Your task to perform on an android device: Go to Android settings Image 0: 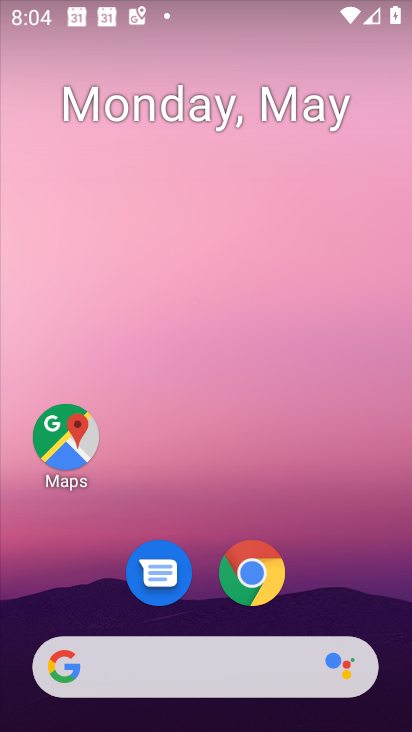
Step 0: drag from (241, 498) to (268, 341)
Your task to perform on an android device: Go to Android settings Image 1: 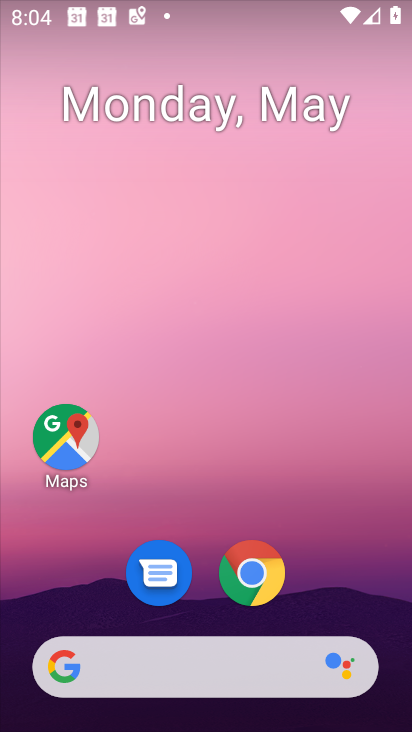
Step 1: click (265, 32)
Your task to perform on an android device: Go to Android settings Image 2: 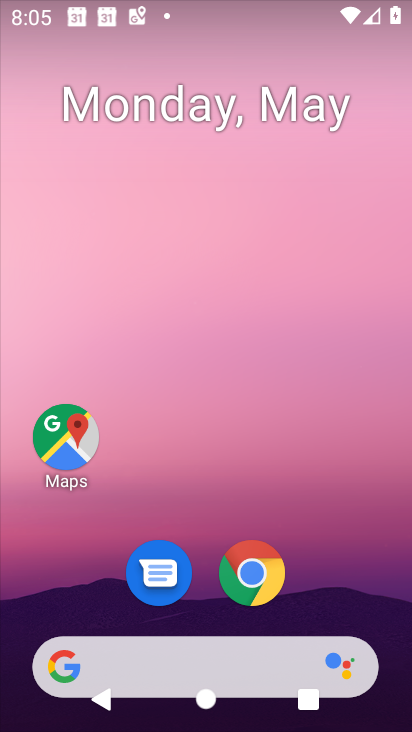
Step 2: drag from (228, 611) to (293, 6)
Your task to perform on an android device: Go to Android settings Image 3: 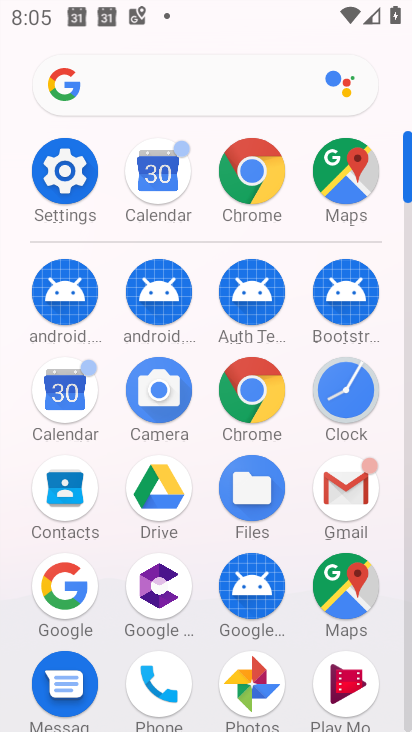
Step 3: click (87, 181)
Your task to perform on an android device: Go to Android settings Image 4: 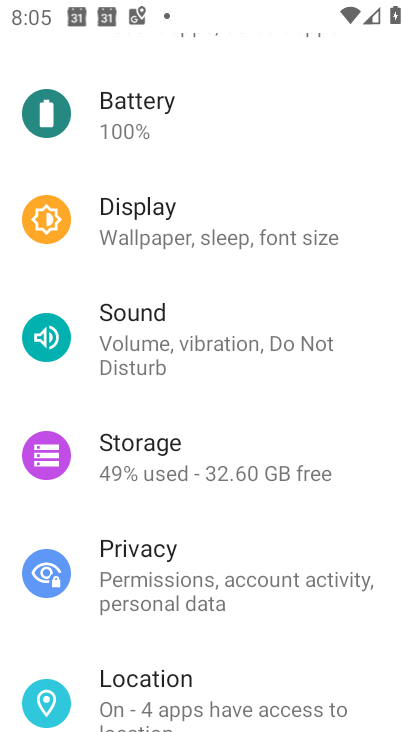
Step 4: drag from (227, 566) to (219, 0)
Your task to perform on an android device: Go to Android settings Image 5: 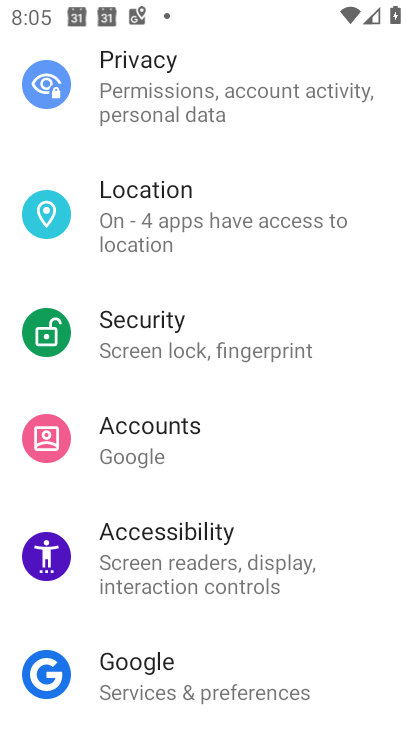
Step 5: drag from (184, 531) to (245, 89)
Your task to perform on an android device: Go to Android settings Image 6: 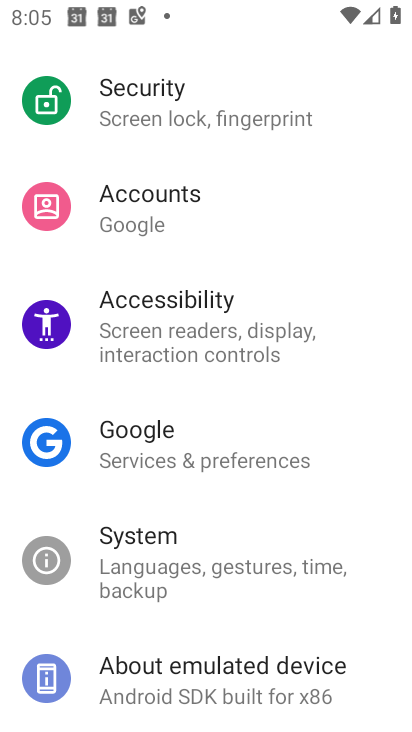
Step 6: click (199, 682)
Your task to perform on an android device: Go to Android settings Image 7: 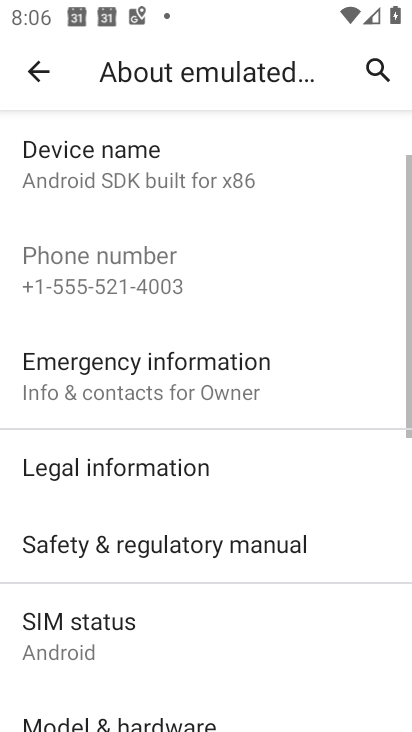
Step 7: drag from (229, 580) to (231, 191)
Your task to perform on an android device: Go to Android settings Image 8: 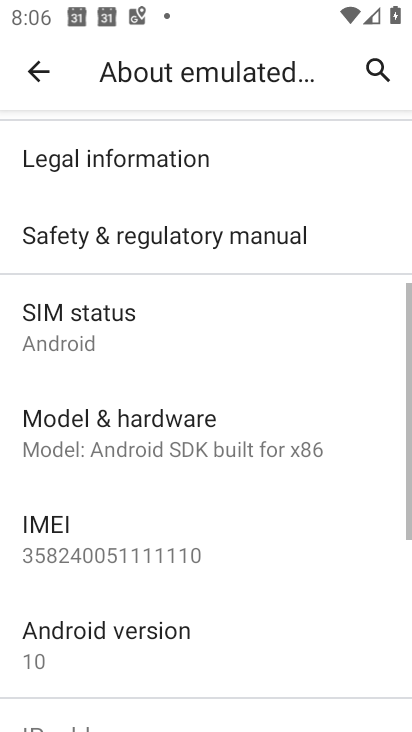
Step 8: click (159, 661)
Your task to perform on an android device: Go to Android settings Image 9: 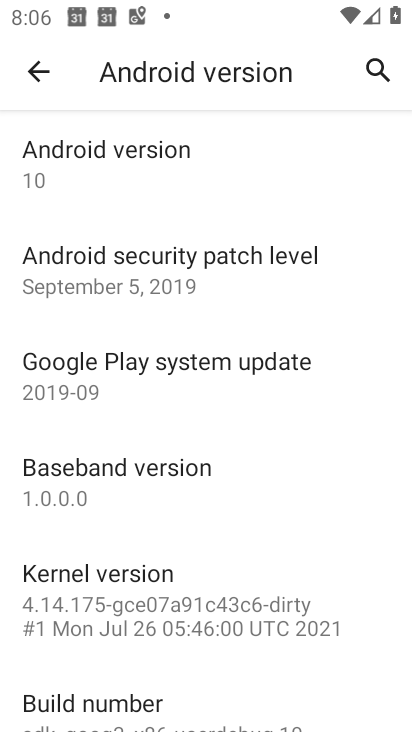
Step 9: task complete